Your task to perform on an android device: turn off picture-in-picture Image 0: 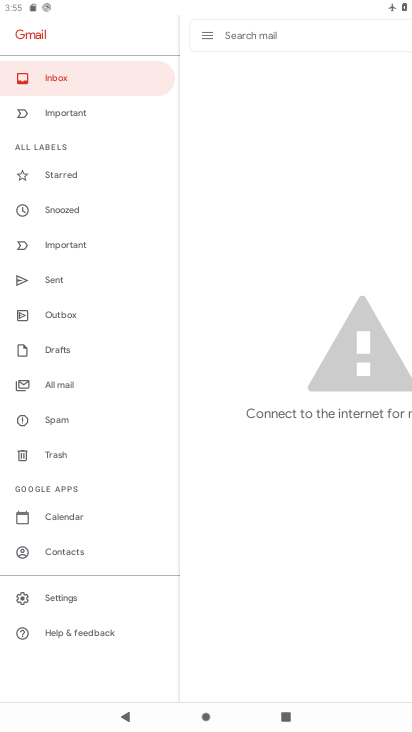
Step 0: press home button
Your task to perform on an android device: turn off picture-in-picture Image 1: 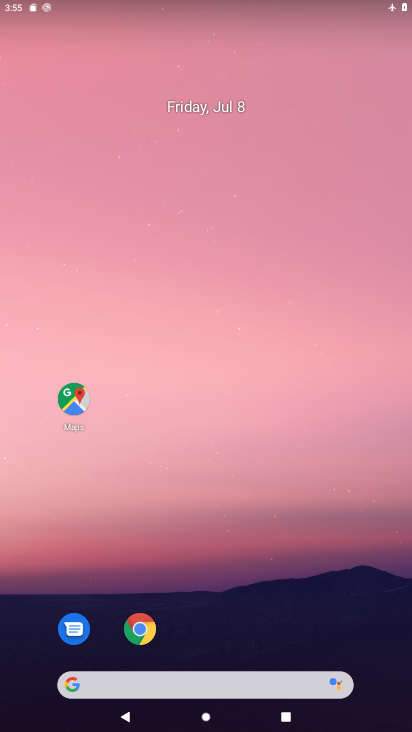
Step 1: drag from (154, 659) to (147, 194)
Your task to perform on an android device: turn off picture-in-picture Image 2: 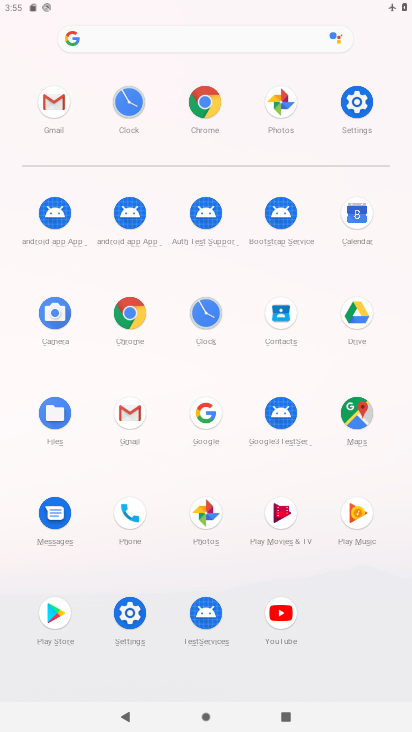
Step 2: click (362, 102)
Your task to perform on an android device: turn off picture-in-picture Image 3: 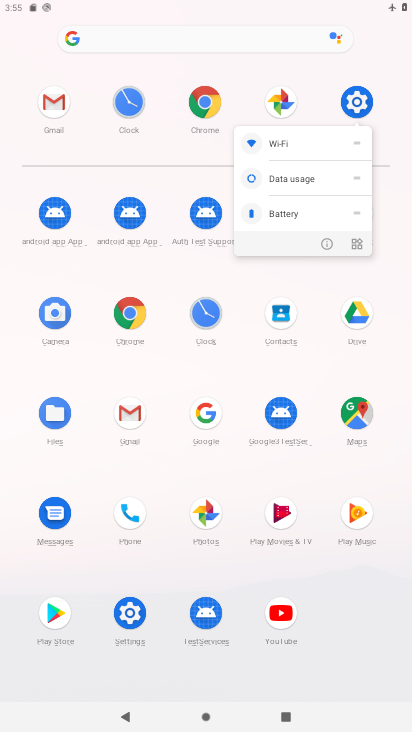
Step 3: click (349, 104)
Your task to perform on an android device: turn off picture-in-picture Image 4: 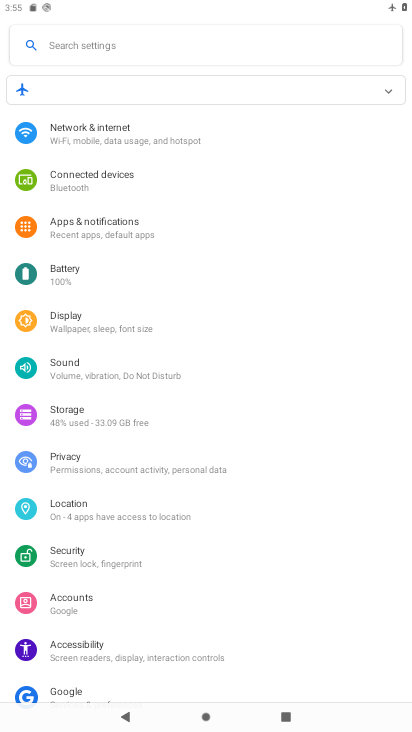
Step 4: click (84, 230)
Your task to perform on an android device: turn off picture-in-picture Image 5: 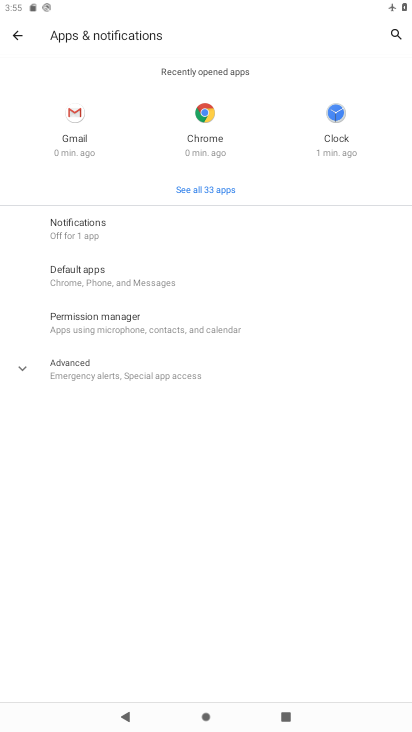
Step 5: click (109, 229)
Your task to perform on an android device: turn off picture-in-picture Image 6: 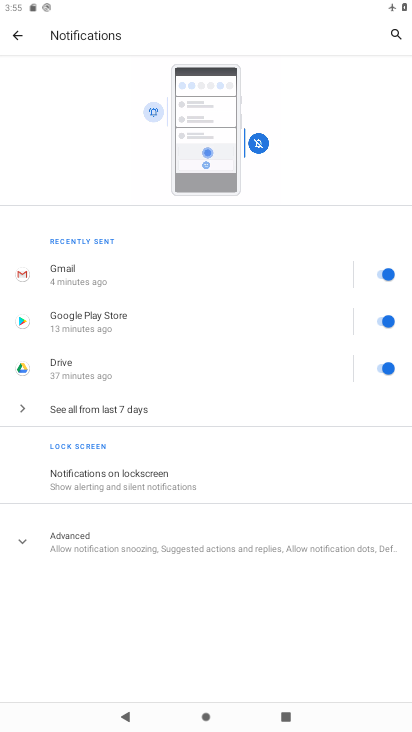
Step 6: click (154, 529)
Your task to perform on an android device: turn off picture-in-picture Image 7: 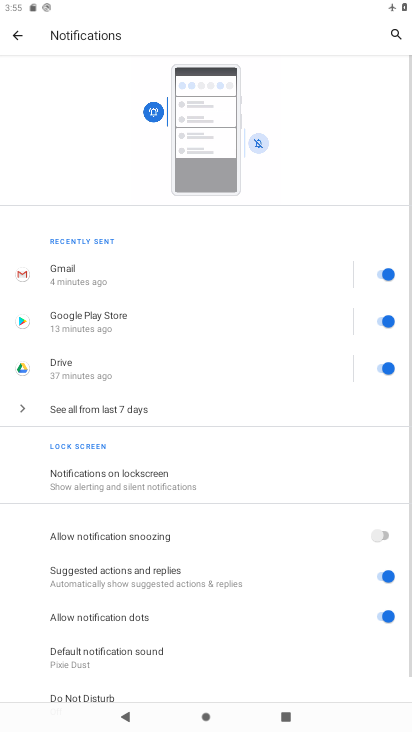
Step 7: drag from (175, 658) to (212, 237)
Your task to perform on an android device: turn off picture-in-picture Image 8: 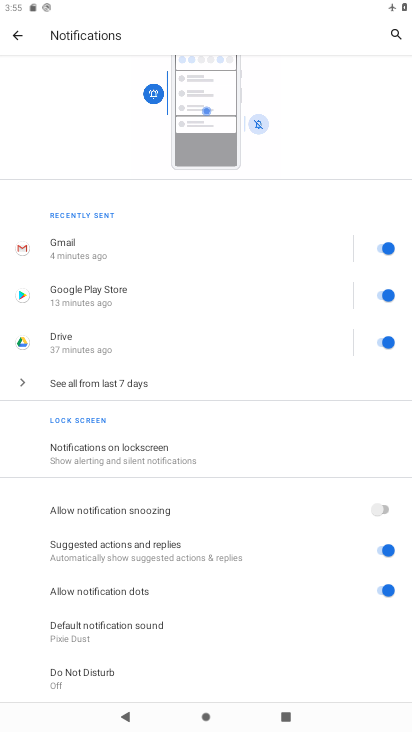
Step 8: click (21, 37)
Your task to perform on an android device: turn off picture-in-picture Image 9: 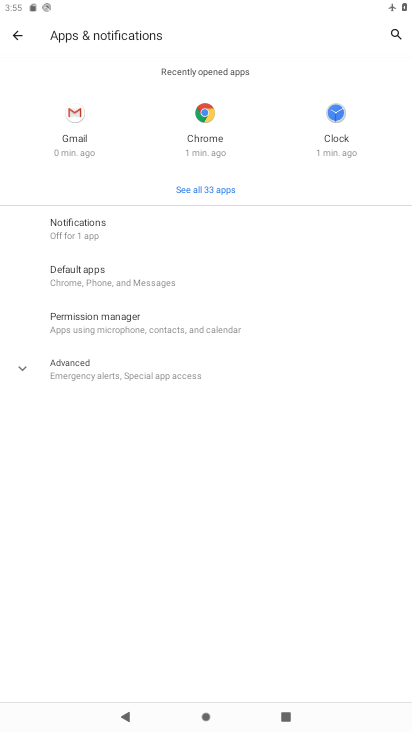
Step 9: click (149, 370)
Your task to perform on an android device: turn off picture-in-picture Image 10: 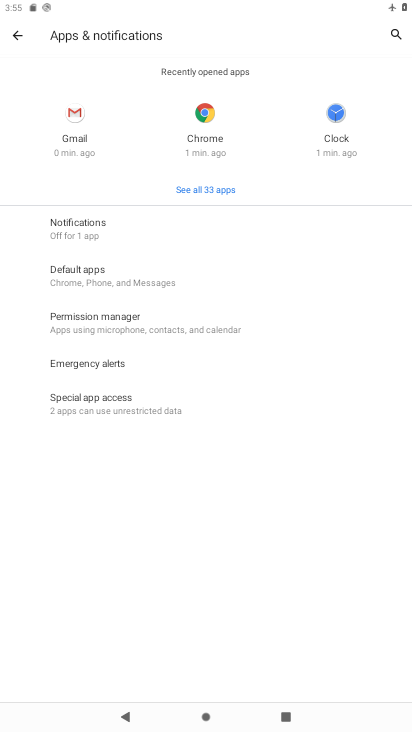
Step 10: click (129, 393)
Your task to perform on an android device: turn off picture-in-picture Image 11: 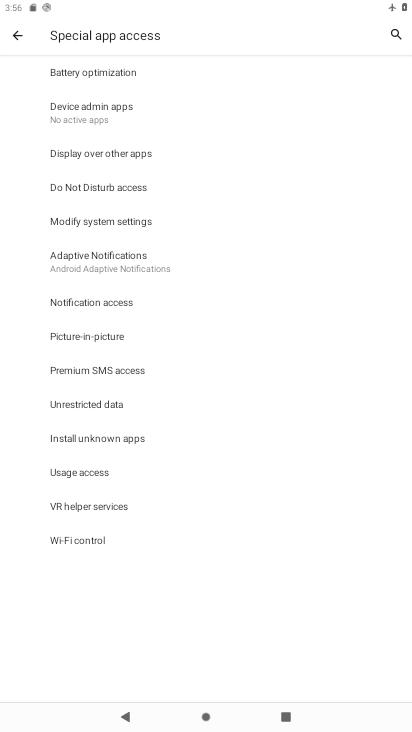
Step 11: click (119, 337)
Your task to perform on an android device: turn off picture-in-picture Image 12: 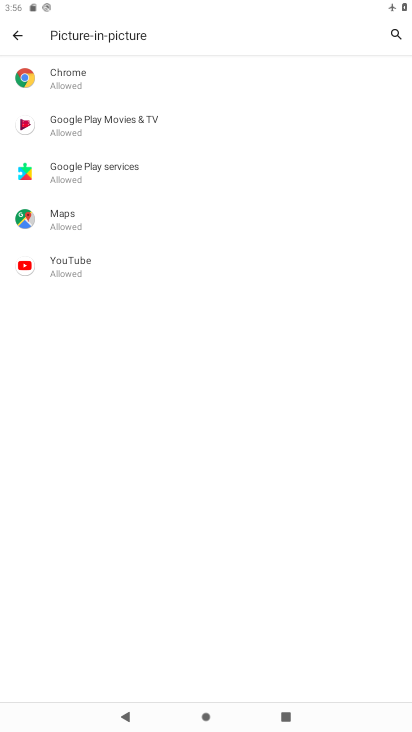
Step 12: click (122, 261)
Your task to perform on an android device: turn off picture-in-picture Image 13: 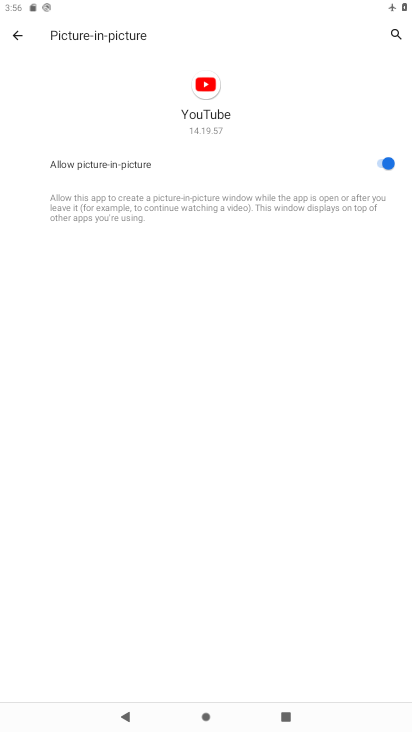
Step 13: click (382, 161)
Your task to perform on an android device: turn off picture-in-picture Image 14: 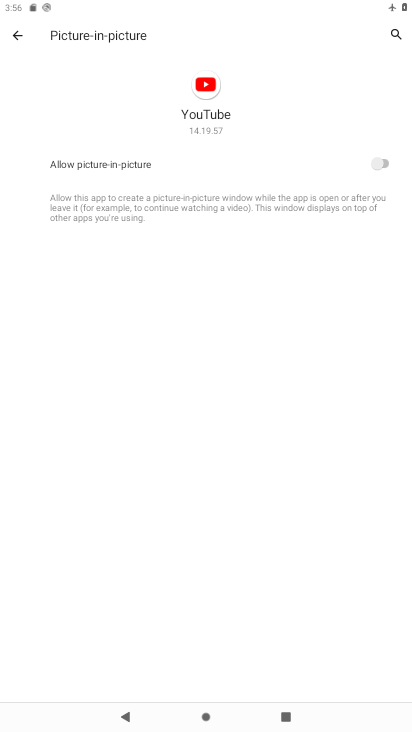
Step 14: task complete